Your task to perform on an android device: open app "Google Sheets" Image 0: 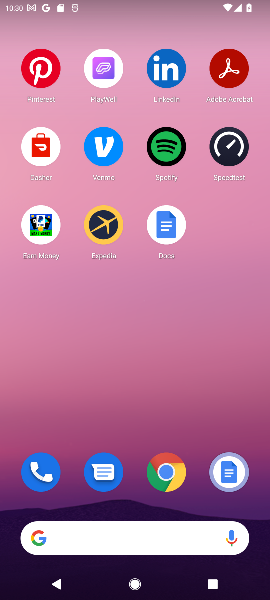
Step 0: drag from (188, 415) to (88, 141)
Your task to perform on an android device: open app "Google Sheets" Image 1: 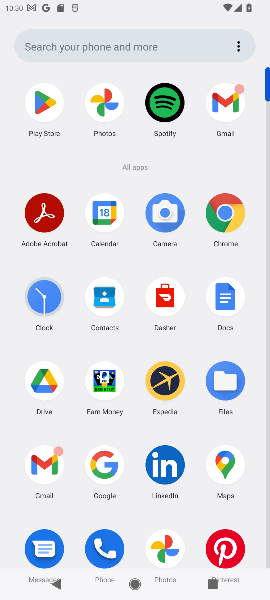
Step 1: drag from (190, 516) to (129, 316)
Your task to perform on an android device: open app "Google Sheets" Image 2: 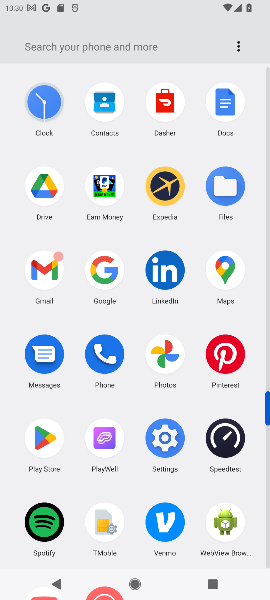
Step 2: drag from (197, 492) to (138, 284)
Your task to perform on an android device: open app "Google Sheets" Image 3: 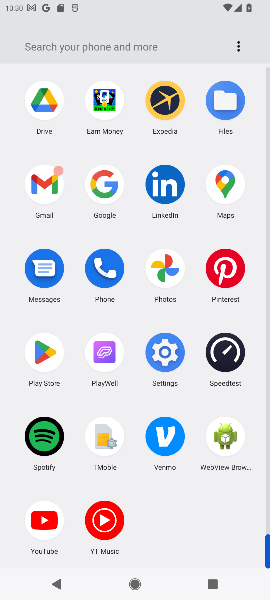
Step 3: click (54, 355)
Your task to perform on an android device: open app "Google Sheets" Image 4: 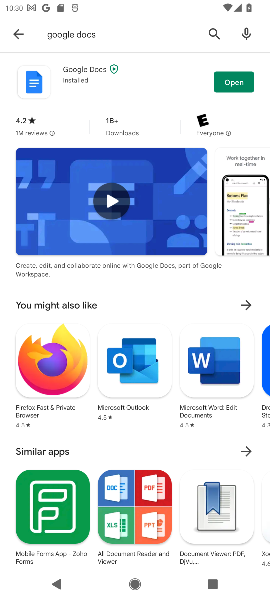
Step 4: click (211, 37)
Your task to perform on an android device: open app "Google Sheets" Image 5: 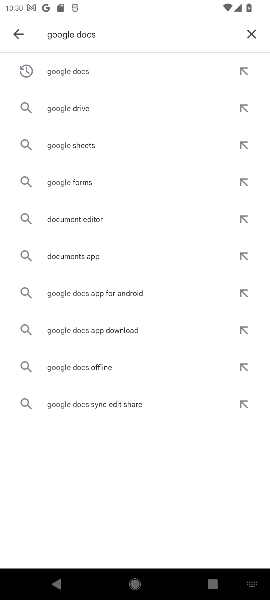
Step 5: click (252, 35)
Your task to perform on an android device: open app "Google Sheets" Image 6: 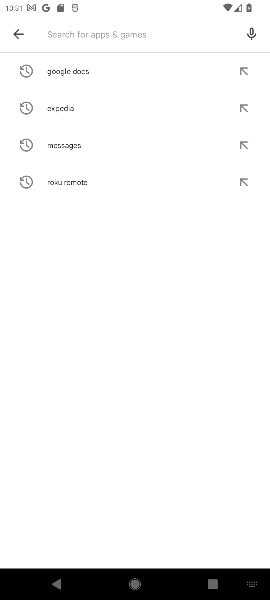
Step 6: type "google sheets"
Your task to perform on an android device: open app "Google Sheets" Image 7: 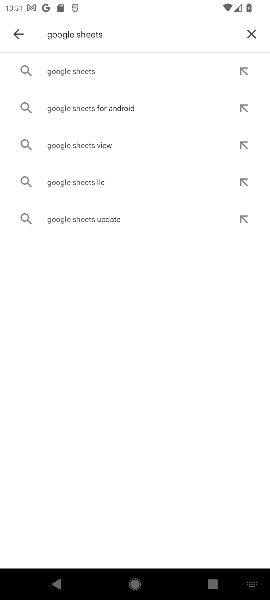
Step 7: click (121, 72)
Your task to perform on an android device: open app "Google Sheets" Image 8: 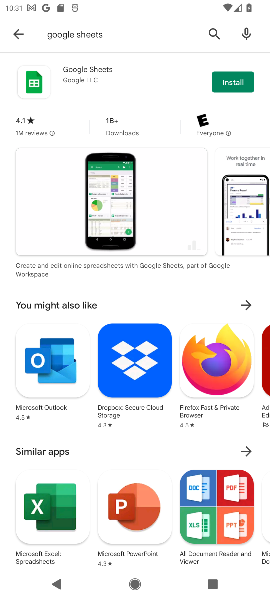
Step 8: click (120, 76)
Your task to perform on an android device: open app "Google Sheets" Image 9: 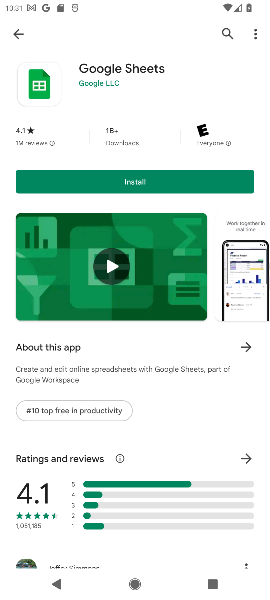
Step 9: task complete